Your task to perform on an android device: open a bookmark in the chrome app Image 0: 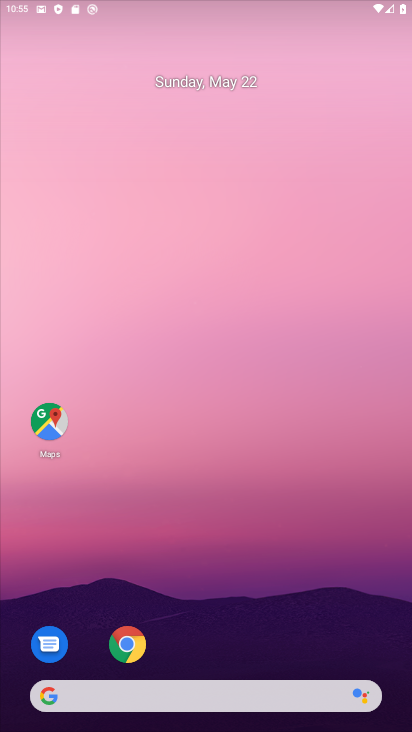
Step 0: drag from (205, 668) to (238, 59)
Your task to perform on an android device: open a bookmark in the chrome app Image 1: 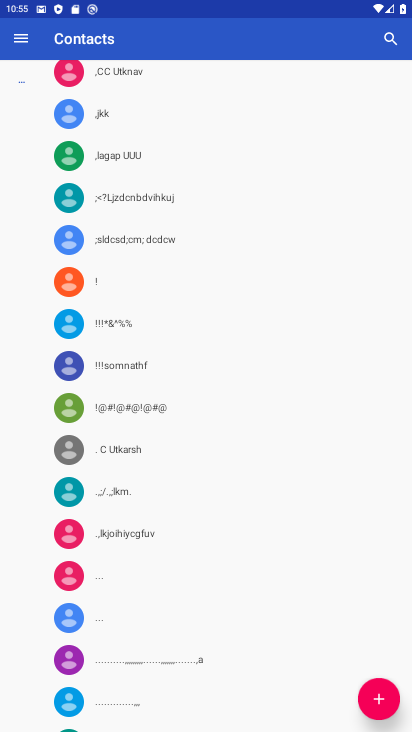
Step 1: press home button
Your task to perform on an android device: open a bookmark in the chrome app Image 2: 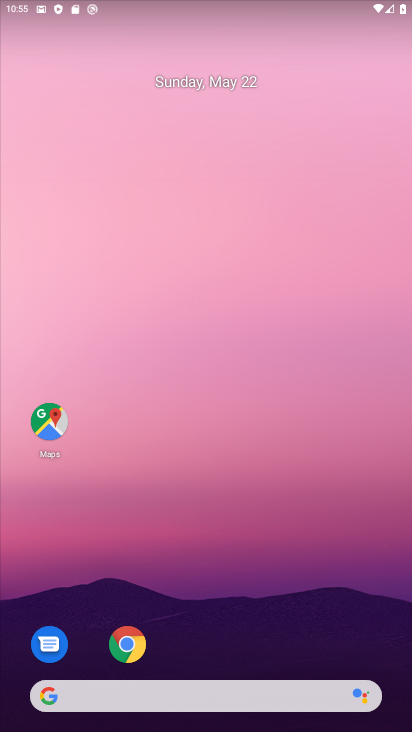
Step 2: click (123, 638)
Your task to perform on an android device: open a bookmark in the chrome app Image 3: 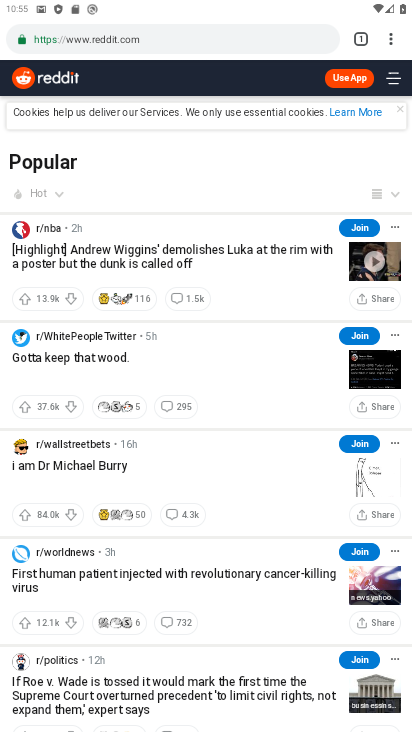
Step 3: click (390, 30)
Your task to perform on an android device: open a bookmark in the chrome app Image 4: 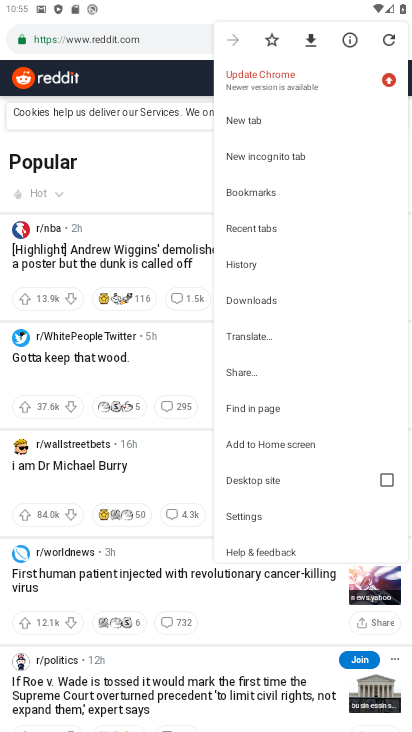
Step 4: click (284, 189)
Your task to perform on an android device: open a bookmark in the chrome app Image 5: 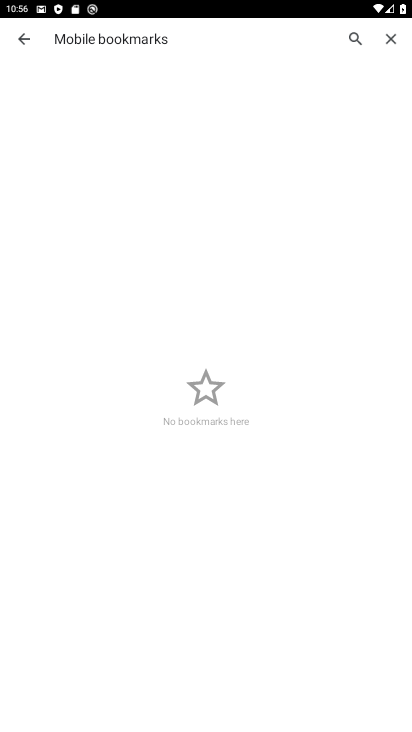
Step 5: task complete